Your task to perform on an android device: add a contact Image 0: 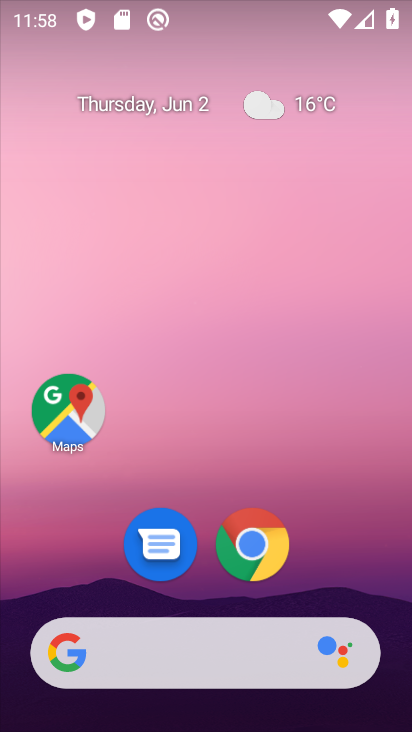
Step 0: drag from (389, 569) to (365, 143)
Your task to perform on an android device: add a contact Image 1: 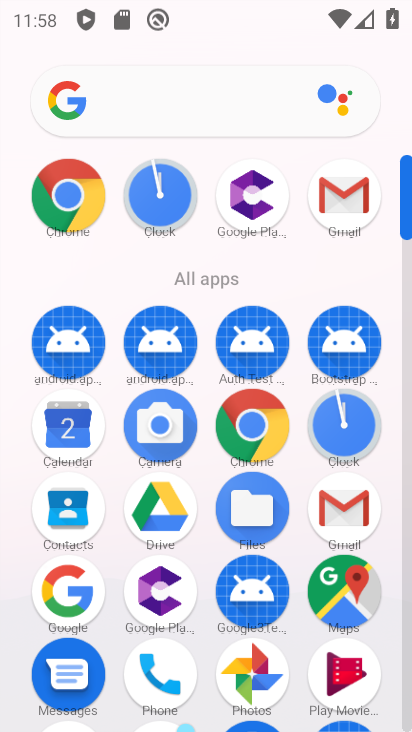
Step 1: click (62, 516)
Your task to perform on an android device: add a contact Image 2: 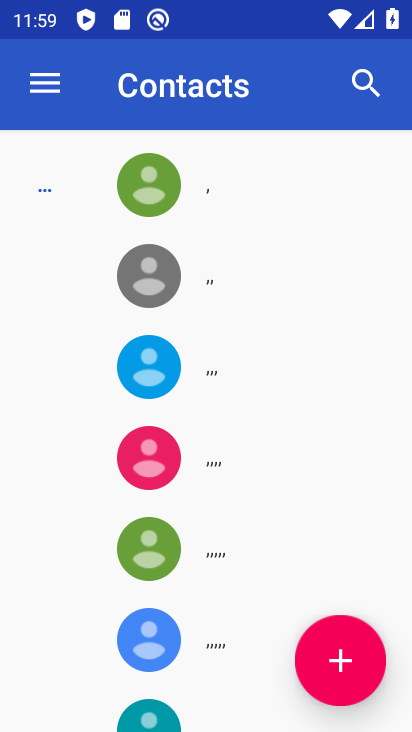
Step 2: click (362, 674)
Your task to perform on an android device: add a contact Image 3: 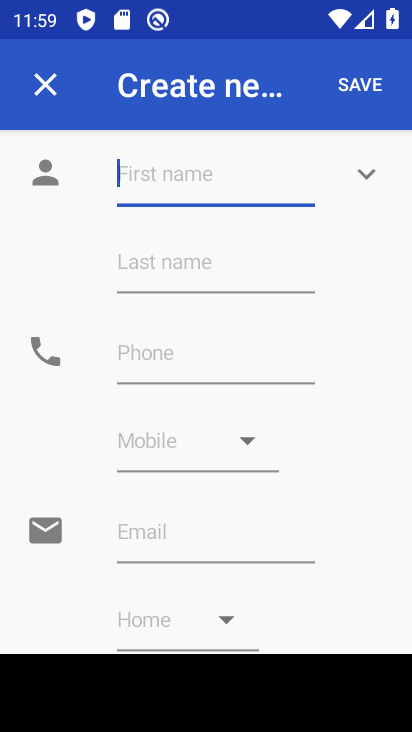
Step 3: click (210, 170)
Your task to perform on an android device: add a contact Image 4: 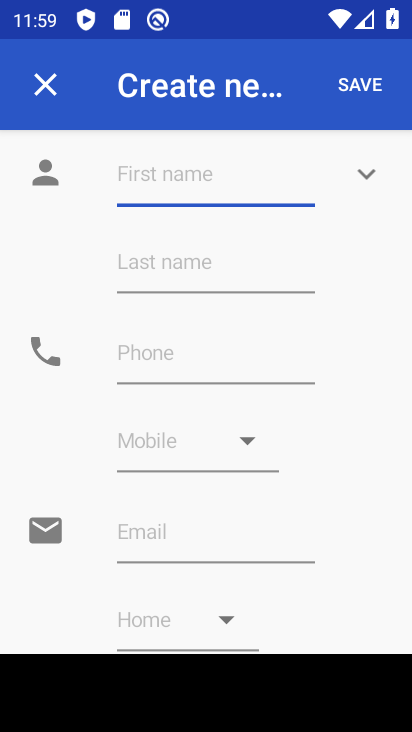
Step 4: type "iuhjj"
Your task to perform on an android device: add a contact Image 5: 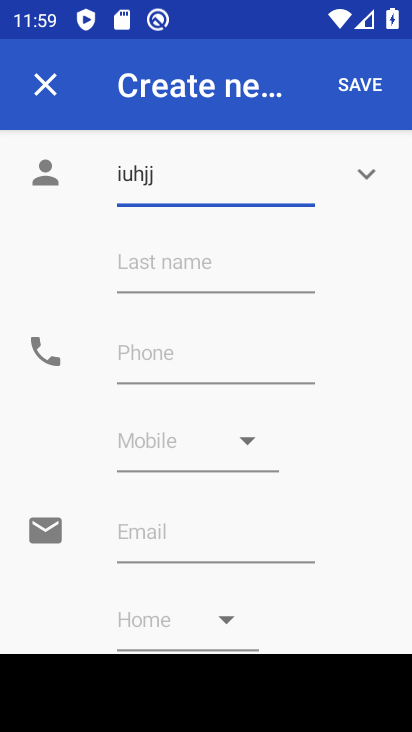
Step 5: click (237, 355)
Your task to perform on an android device: add a contact Image 6: 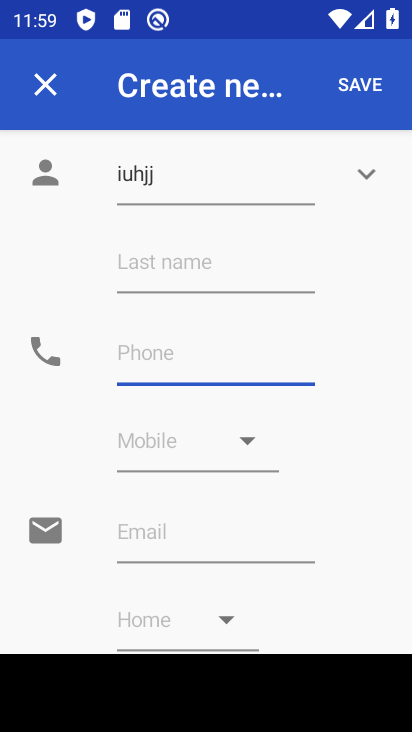
Step 6: type "98765434555"
Your task to perform on an android device: add a contact Image 7: 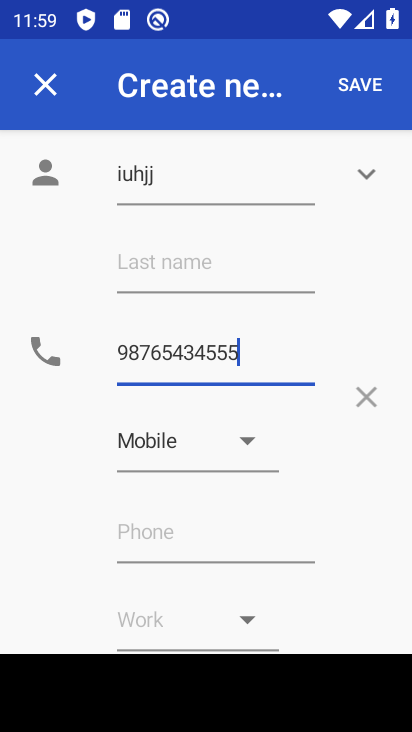
Step 7: click (364, 80)
Your task to perform on an android device: add a contact Image 8: 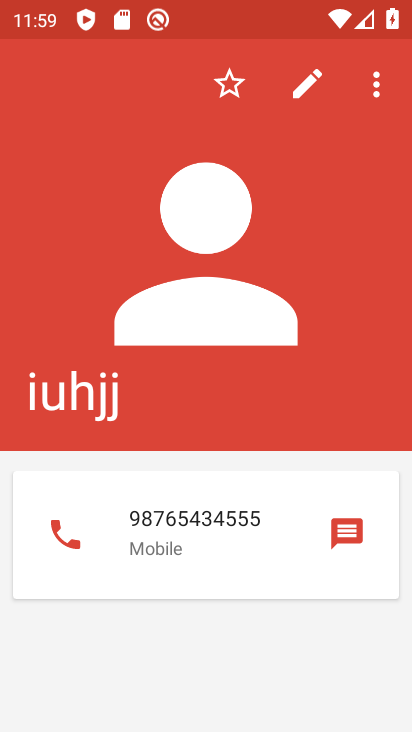
Step 8: task complete